Your task to perform on an android device: turn off improve location accuracy Image 0: 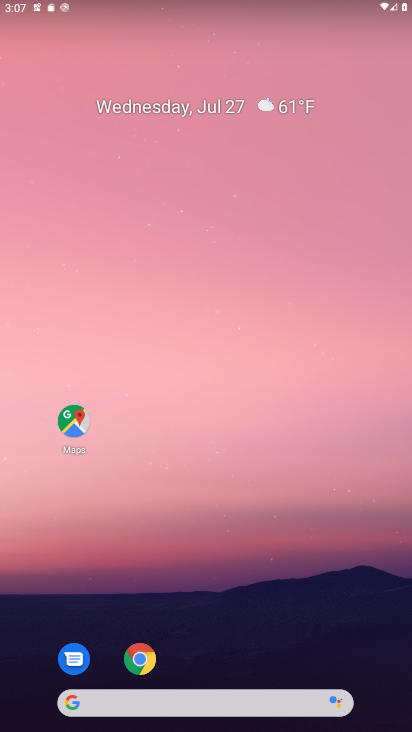
Step 0: drag from (203, 689) to (160, 161)
Your task to perform on an android device: turn off improve location accuracy Image 1: 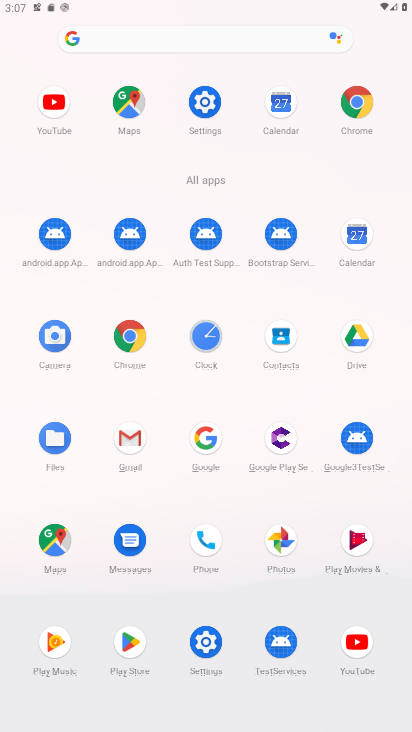
Step 1: click (204, 98)
Your task to perform on an android device: turn off improve location accuracy Image 2: 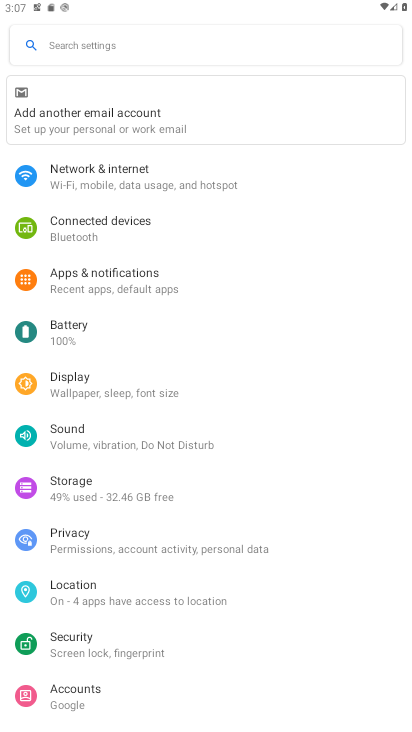
Step 2: click (79, 590)
Your task to perform on an android device: turn off improve location accuracy Image 3: 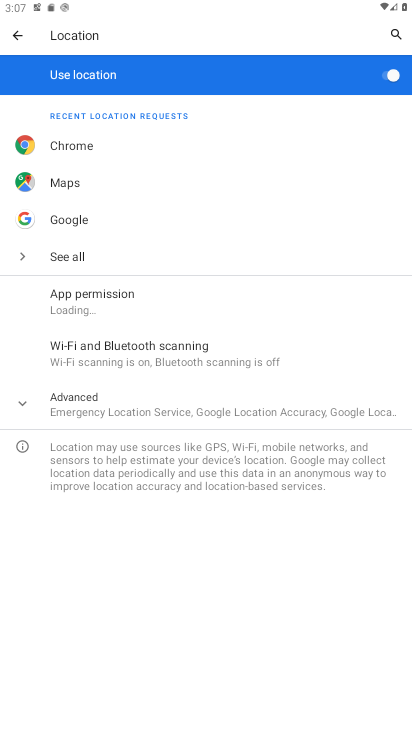
Step 3: click (88, 401)
Your task to perform on an android device: turn off improve location accuracy Image 4: 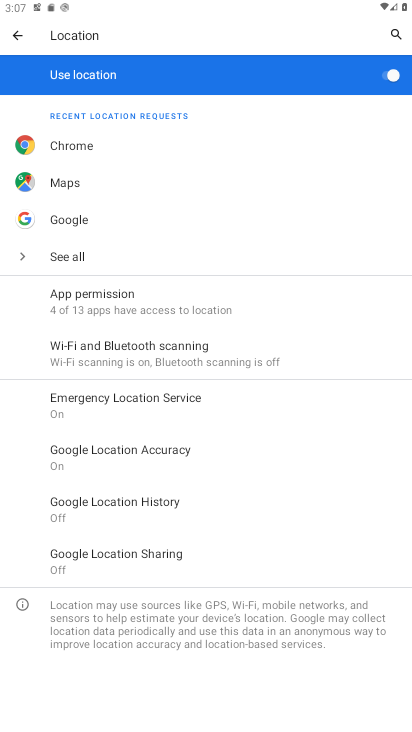
Step 4: click (159, 440)
Your task to perform on an android device: turn off improve location accuracy Image 5: 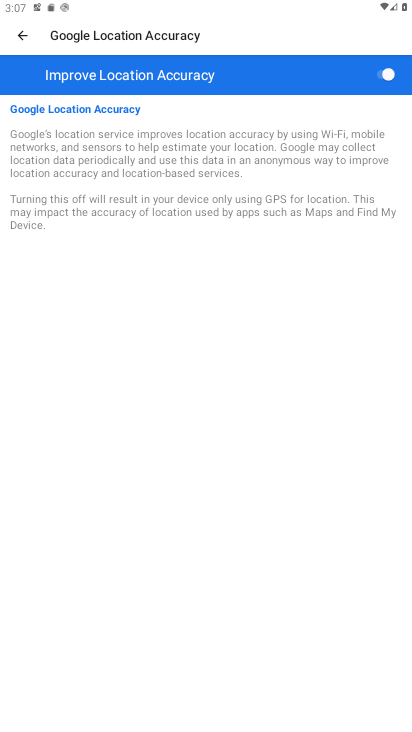
Step 5: click (378, 80)
Your task to perform on an android device: turn off improve location accuracy Image 6: 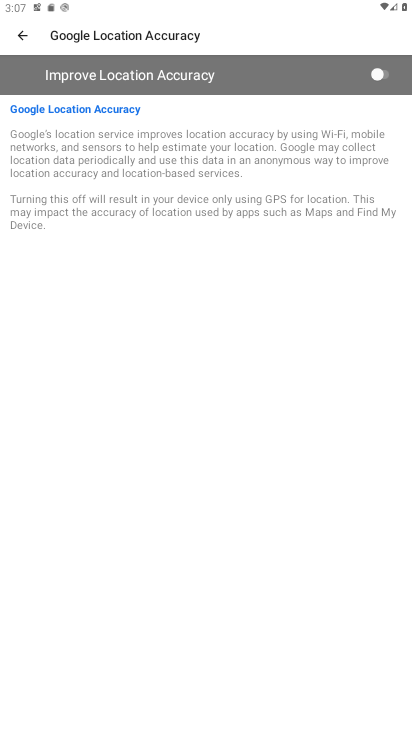
Step 6: task complete